Your task to perform on an android device: Open the web browser Image 0: 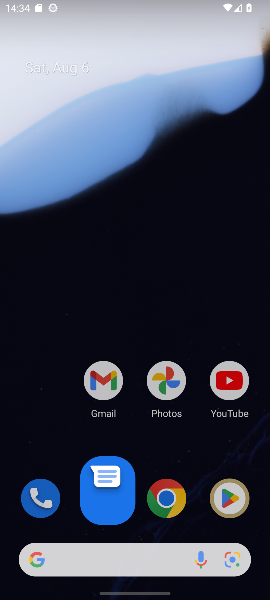
Step 0: press home button
Your task to perform on an android device: Open the web browser Image 1: 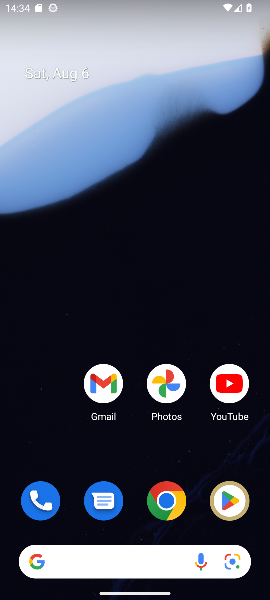
Step 1: click (28, 558)
Your task to perform on an android device: Open the web browser Image 2: 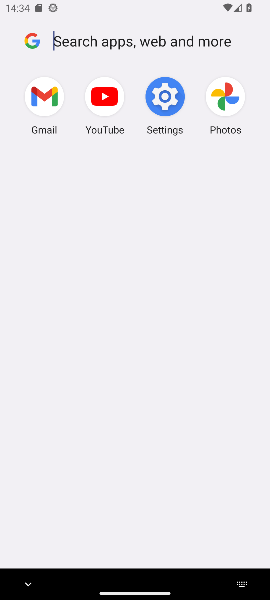
Step 2: task complete